Your task to perform on an android device: Show me the alarms in the clock app Image 0: 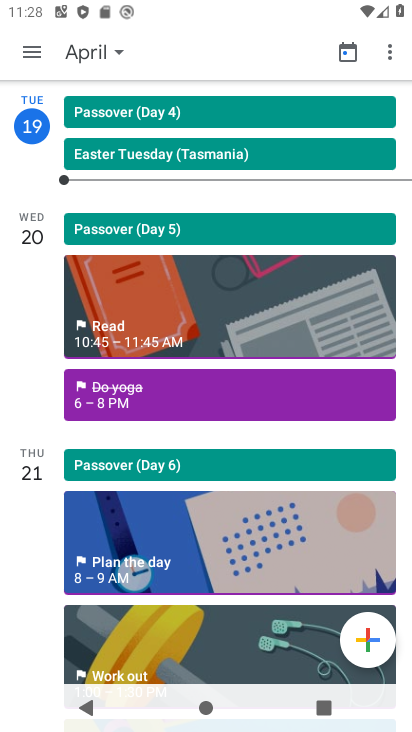
Step 0: press home button
Your task to perform on an android device: Show me the alarms in the clock app Image 1: 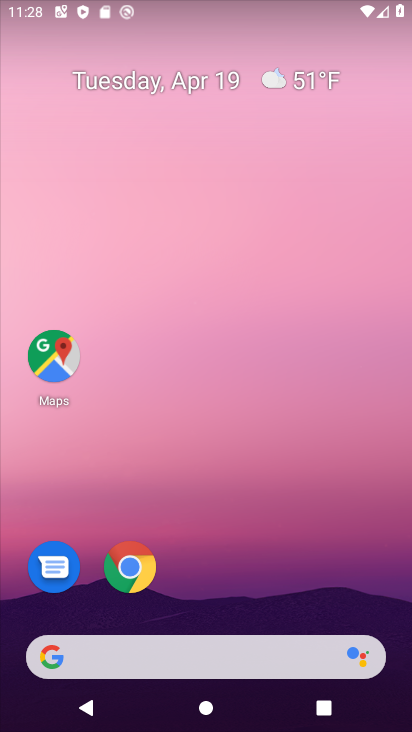
Step 1: drag from (221, 498) to (337, 5)
Your task to perform on an android device: Show me the alarms in the clock app Image 2: 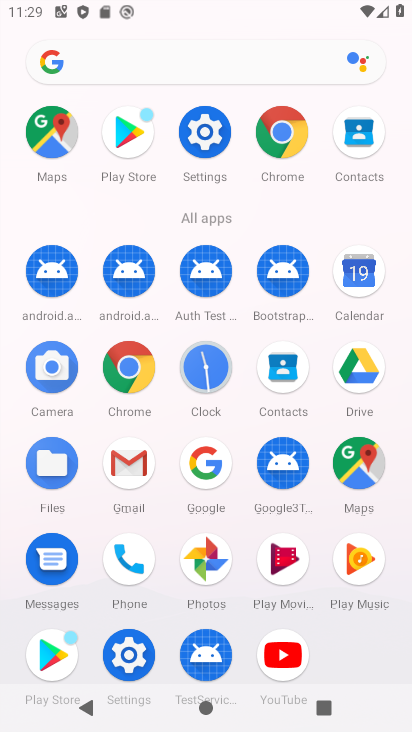
Step 2: click (201, 368)
Your task to perform on an android device: Show me the alarms in the clock app Image 3: 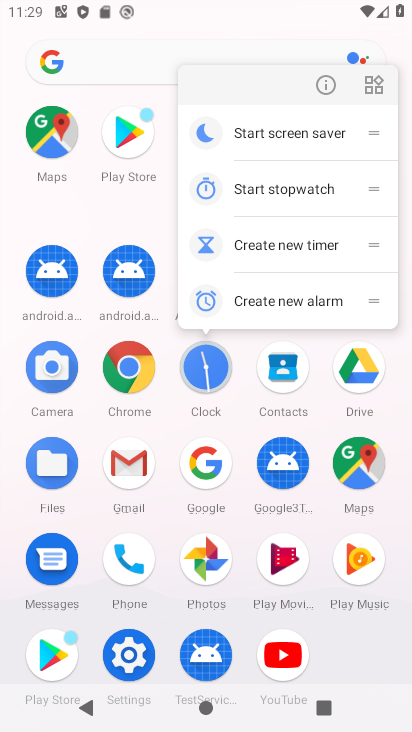
Step 3: click (201, 368)
Your task to perform on an android device: Show me the alarms in the clock app Image 4: 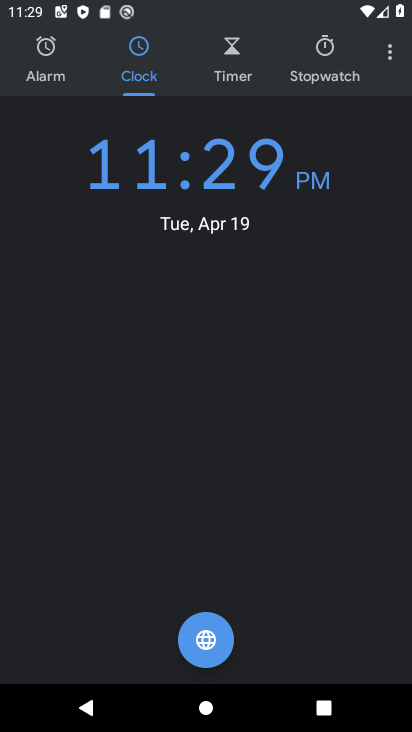
Step 4: click (55, 62)
Your task to perform on an android device: Show me the alarms in the clock app Image 5: 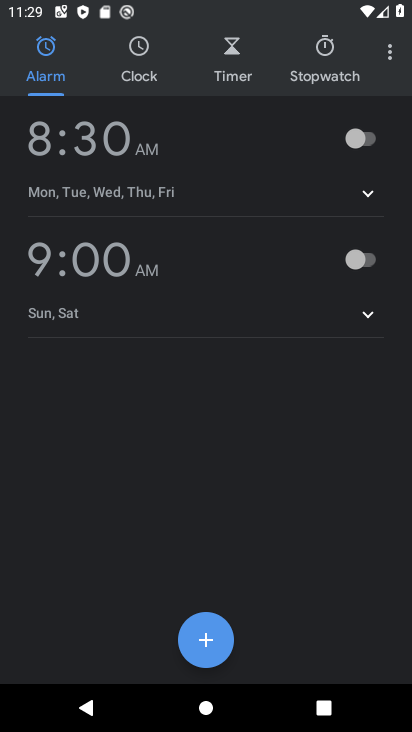
Step 5: task complete